Your task to perform on an android device: Open internet settings Image 0: 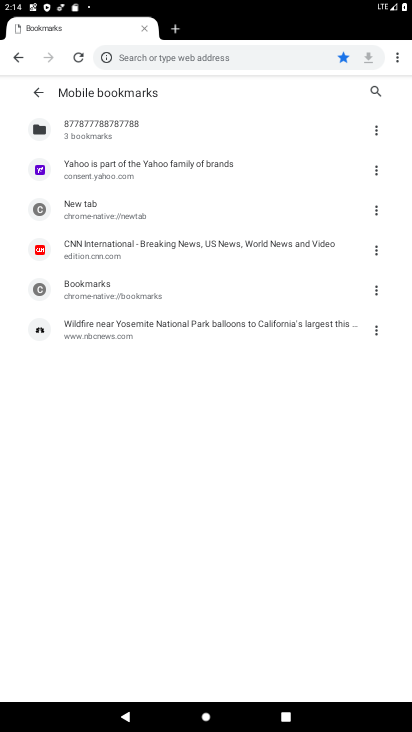
Step 0: press home button
Your task to perform on an android device: Open internet settings Image 1: 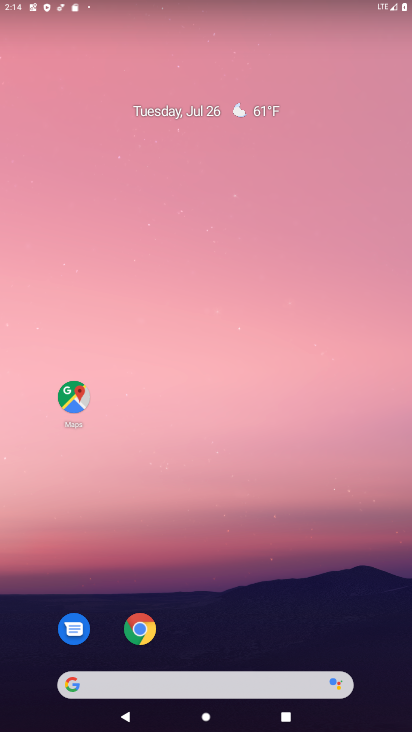
Step 1: drag from (248, 298) to (239, 36)
Your task to perform on an android device: Open internet settings Image 2: 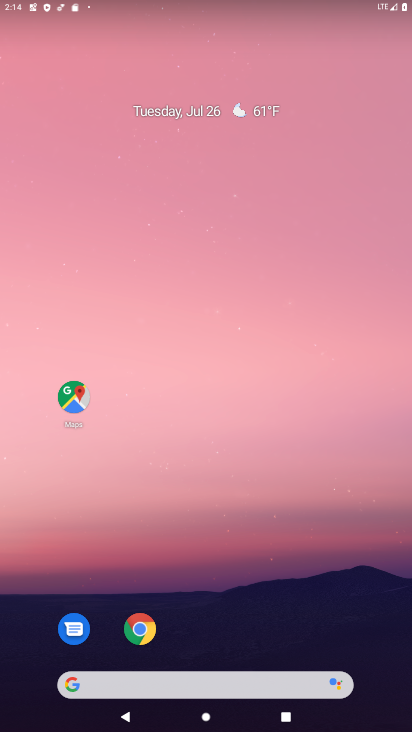
Step 2: drag from (197, 561) to (197, 20)
Your task to perform on an android device: Open internet settings Image 3: 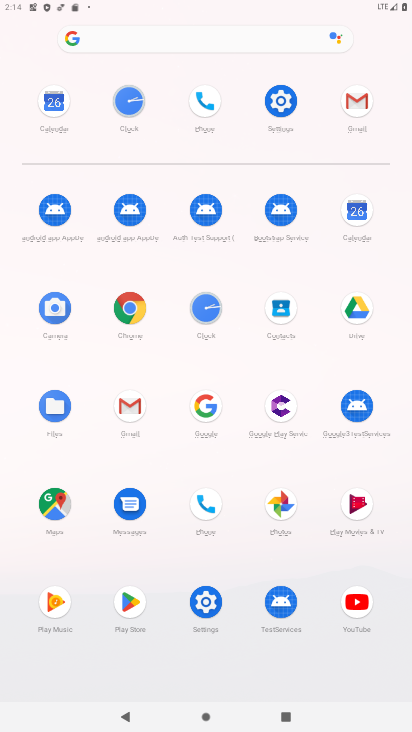
Step 3: click (280, 102)
Your task to perform on an android device: Open internet settings Image 4: 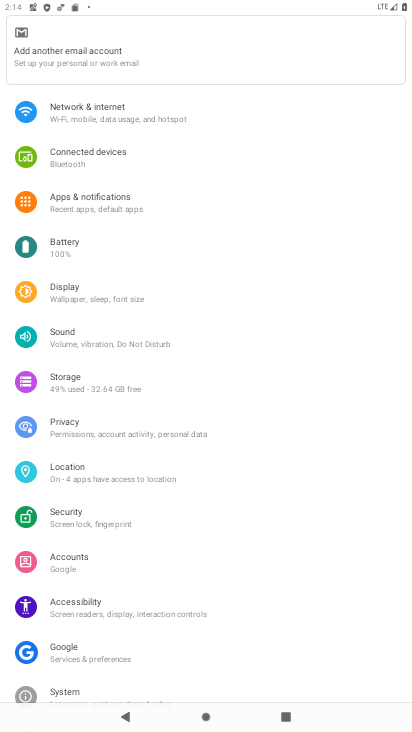
Step 4: click (84, 106)
Your task to perform on an android device: Open internet settings Image 5: 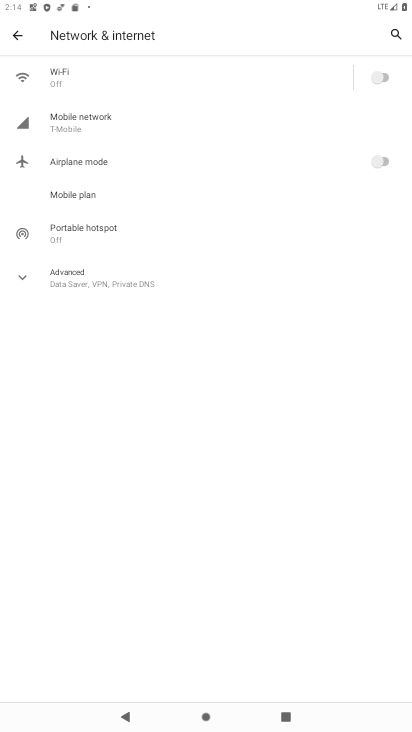
Step 5: click (91, 109)
Your task to perform on an android device: Open internet settings Image 6: 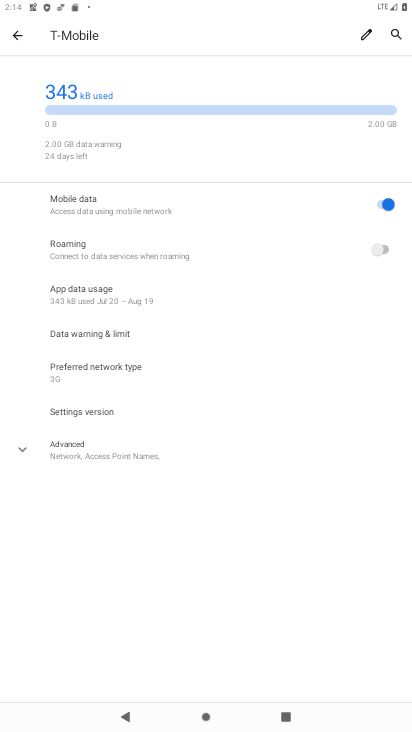
Step 6: task complete